Your task to perform on an android device: turn off priority inbox in the gmail app Image 0: 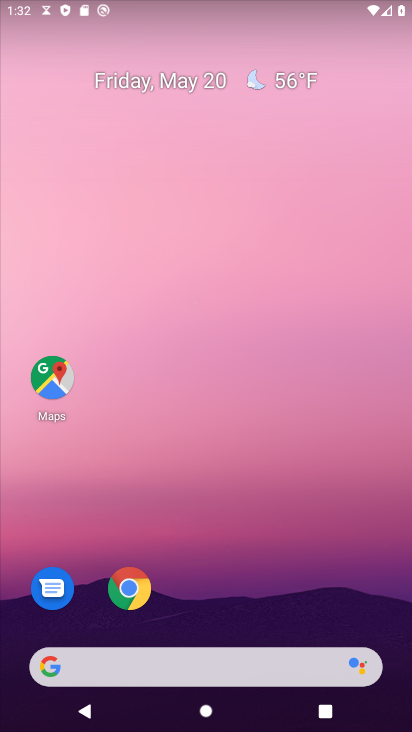
Step 0: press home button
Your task to perform on an android device: turn off priority inbox in the gmail app Image 1: 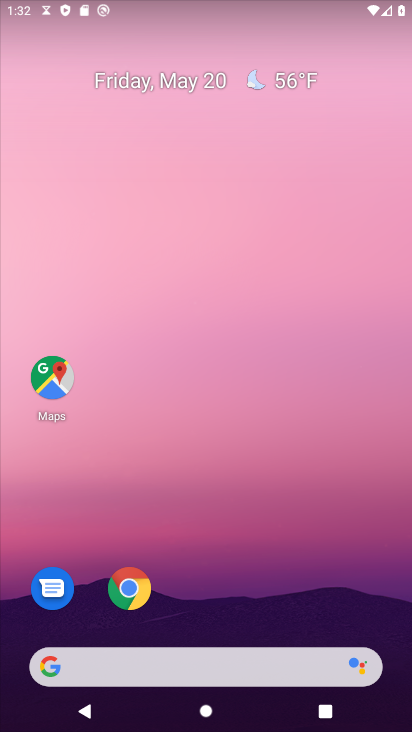
Step 1: drag from (35, 519) to (300, 118)
Your task to perform on an android device: turn off priority inbox in the gmail app Image 2: 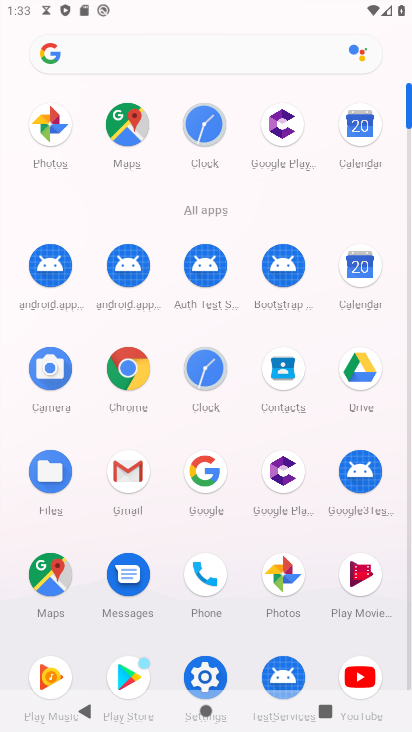
Step 2: click (144, 486)
Your task to perform on an android device: turn off priority inbox in the gmail app Image 3: 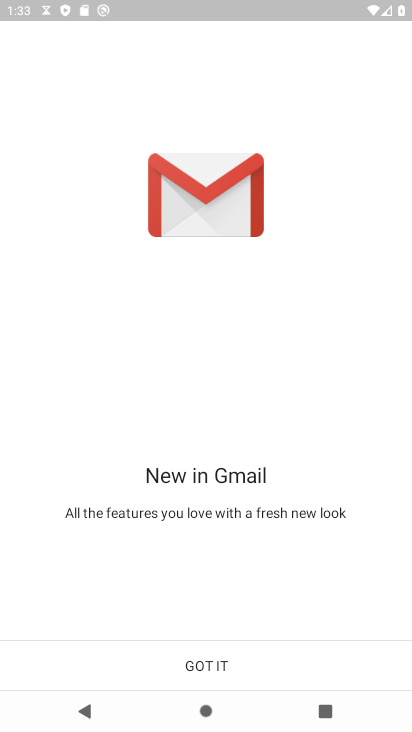
Step 3: click (205, 671)
Your task to perform on an android device: turn off priority inbox in the gmail app Image 4: 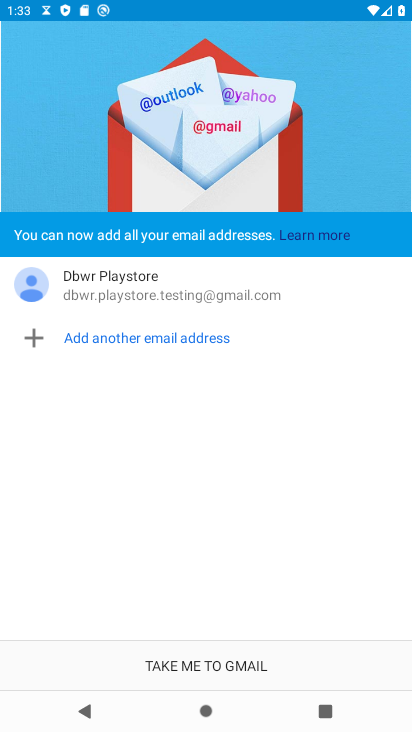
Step 4: click (206, 668)
Your task to perform on an android device: turn off priority inbox in the gmail app Image 5: 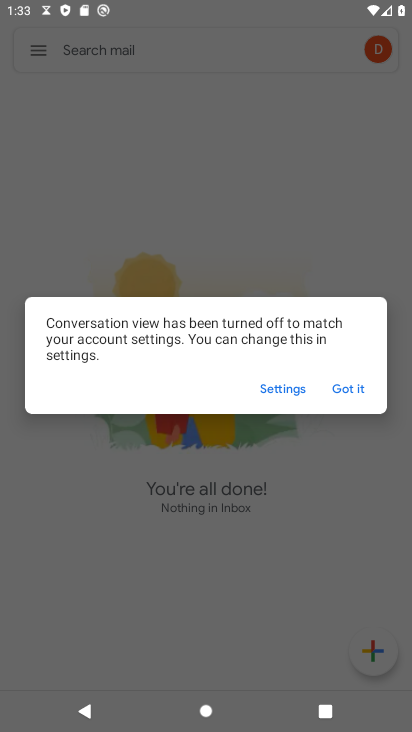
Step 5: click (340, 388)
Your task to perform on an android device: turn off priority inbox in the gmail app Image 6: 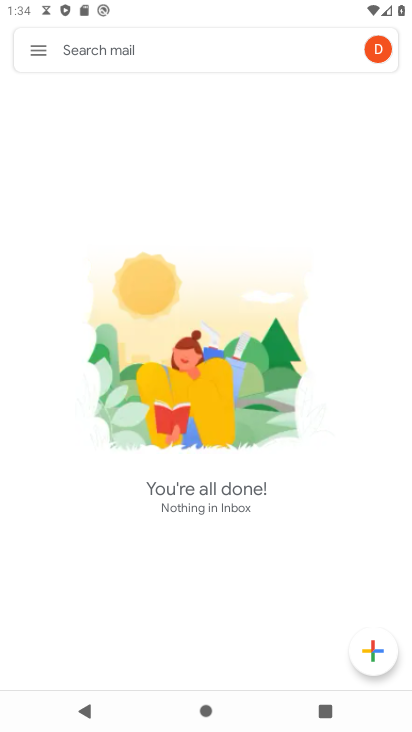
Step 6: click (42, 47)
Your task to perform on an android device: turn off priority inbox in the gmail app Image 7: 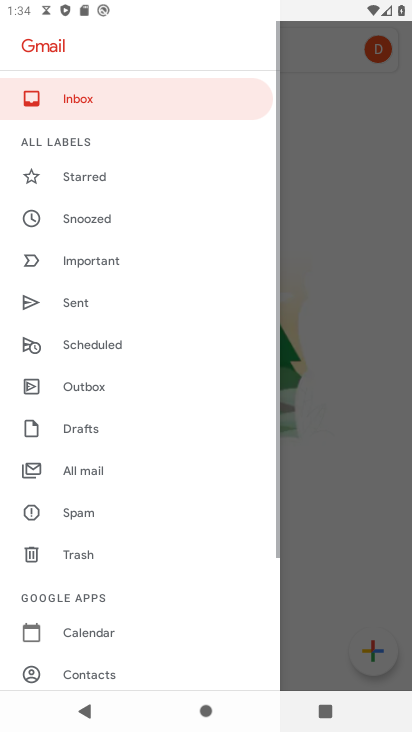
Step 7: drag from (38, 579) to (160, 78)
Your task to perform on an android device: turn off priority inbox in the gmail app Image 8: 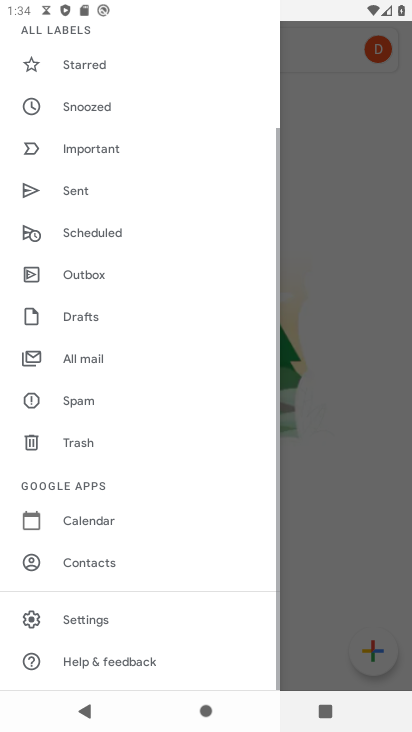
Step 8: click (82, 622)
Your task to perform on an android device: turn off priority inbox in the gmail app Image 9: 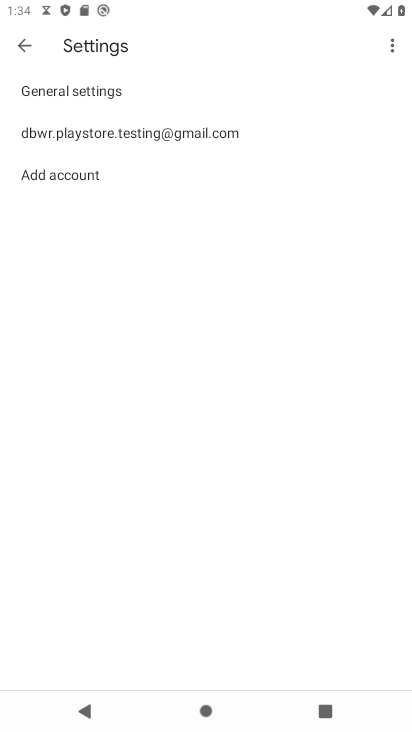
Step 9: click (74, 136)
Your task to perform on an android device: turn off priority inbox in the gmail app Image 10: 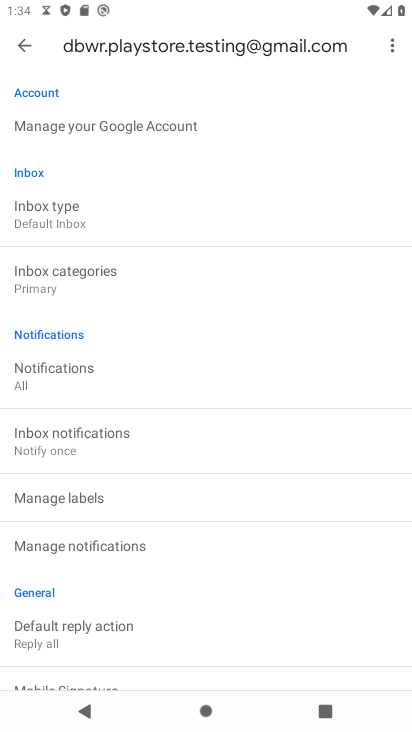
Step 10: click (109, 209)
Your task to perform on an android device: turn off priority inbox in the gmail app Image 11: 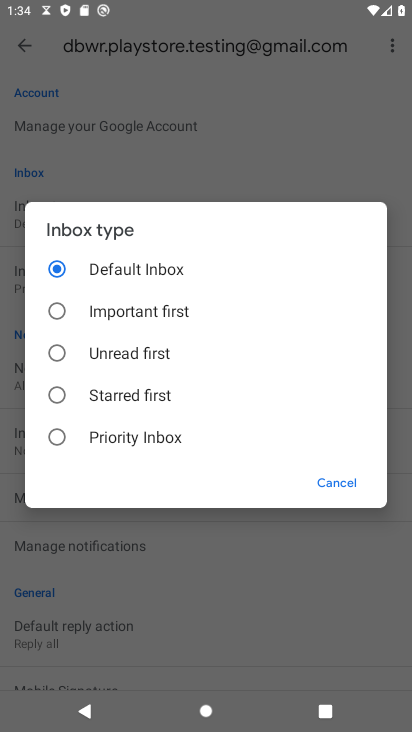
Step 11: task complete